Your task to perform on an android device: Go to location settings Image 0: 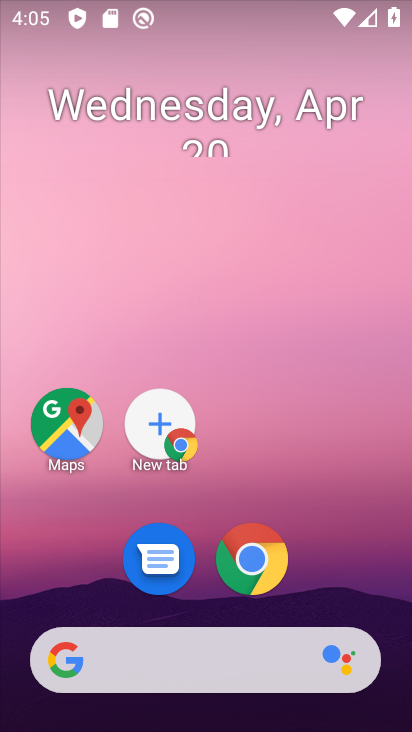
Step 0: drag from (354, 593) to (324, 220)
Your task to perform on an android device: Go to location settings Image 1: 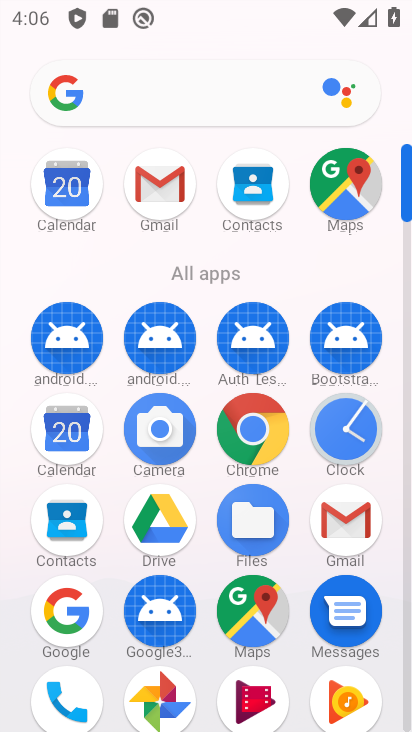
Step 1: click (249, 424)
Your task to perform on an android device: Go to location settings Image 2: 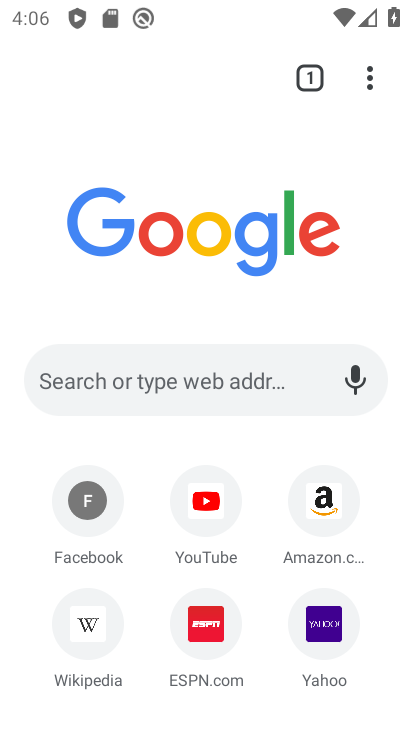
Step 2: press back button
Your task to perform on an android device: Go to location settings Image 3: 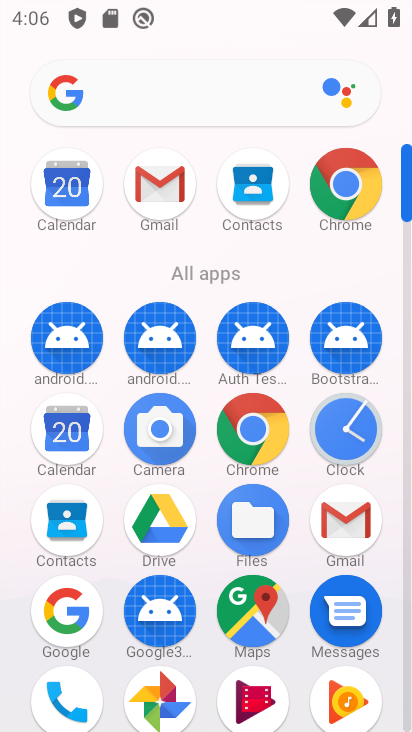
Step 3: click (409, 592)
Your task to perform on an android device: Go to location settings Image 4: 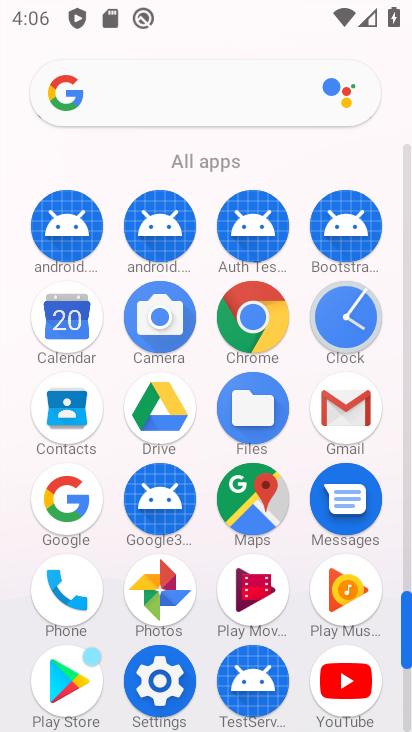
Step 4: click (163, 681)
Your task to perform on an android device: Go to location settings Image 5: 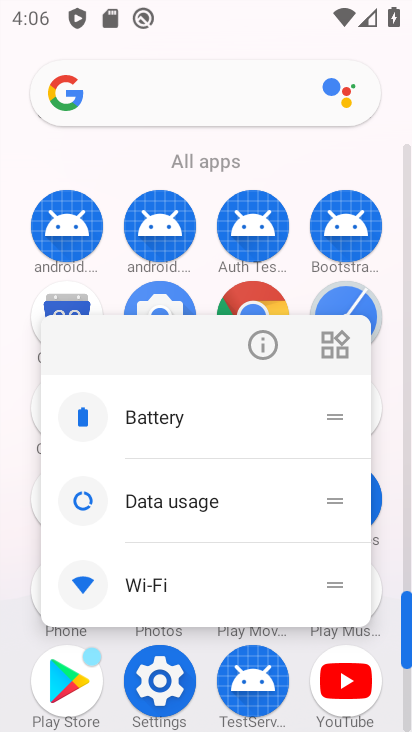
Step 5: click (163, 664)
Your task to perform on an android device: Go to location settings Image 6: 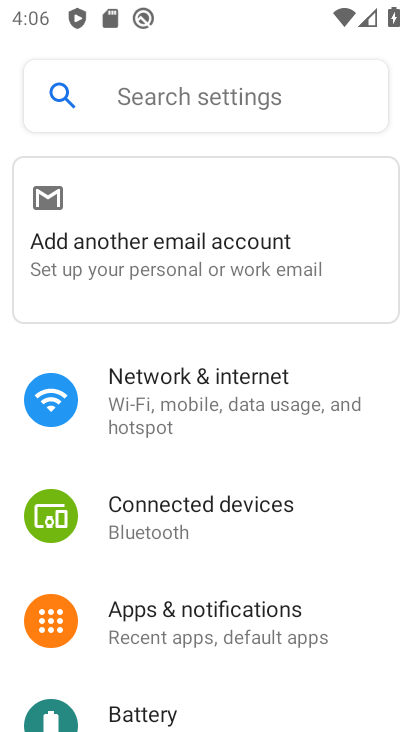
Step 6: drag from (163, 664) to (237, 343)
Your task to perform on an android device: Go to location settings Image 7: 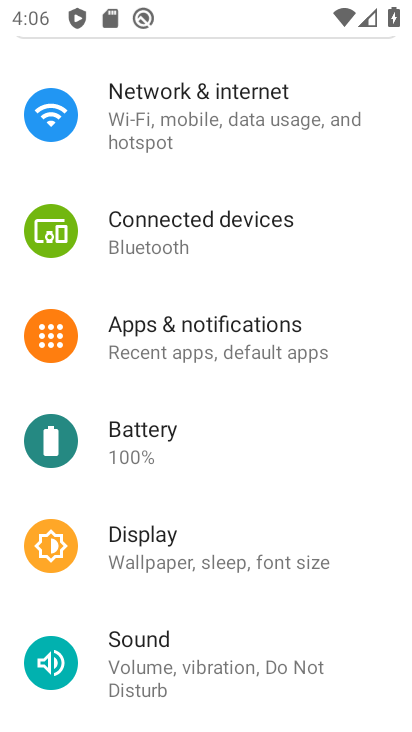
Step 7: drag from (269, 640) to (299, 339)
Your task to perform on an android device: Go to location settings Image 8: 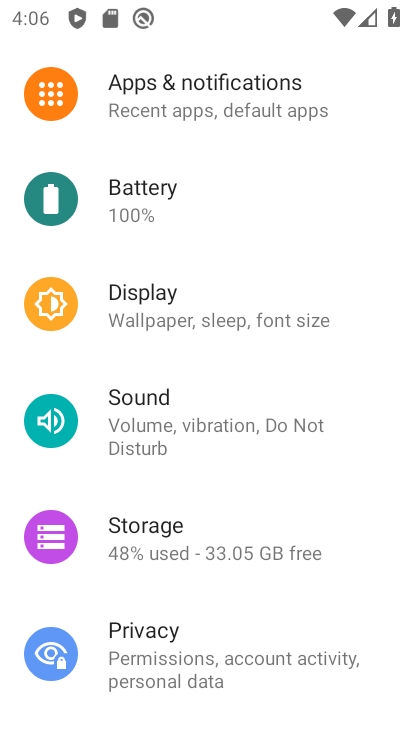
Step 8: drag from (213, 582) to (247, 282)
Your task to perform on an android device: Go to location settings Image 9: 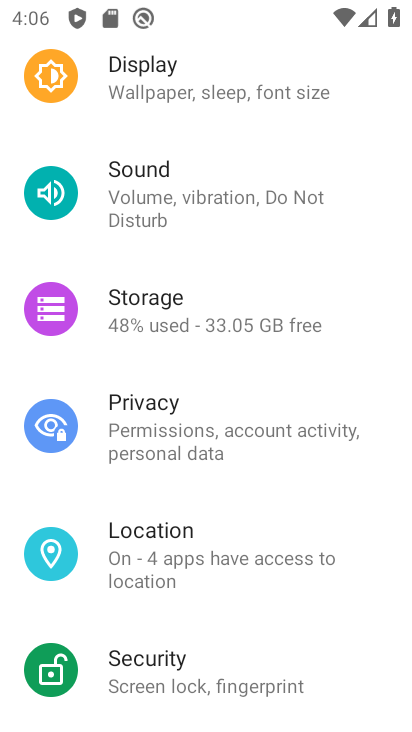
Step 9: click (252, 576)
Your task to perform on an android device: Go to location settings Image 10: 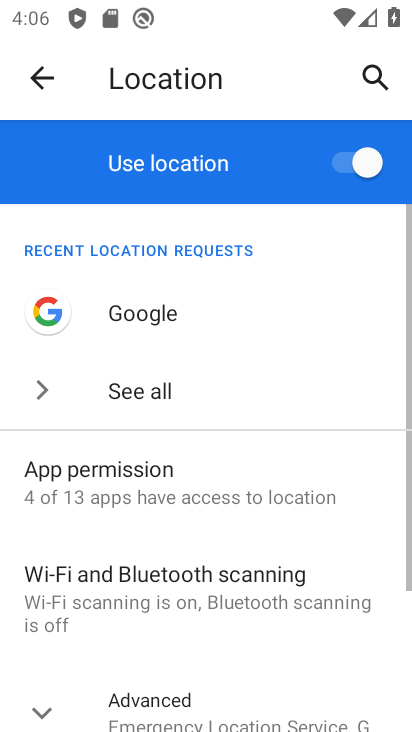
Step 10: drag from (192, 621) to (238, 400)
Your task to perform on an android device: Go to location settings Image 11: 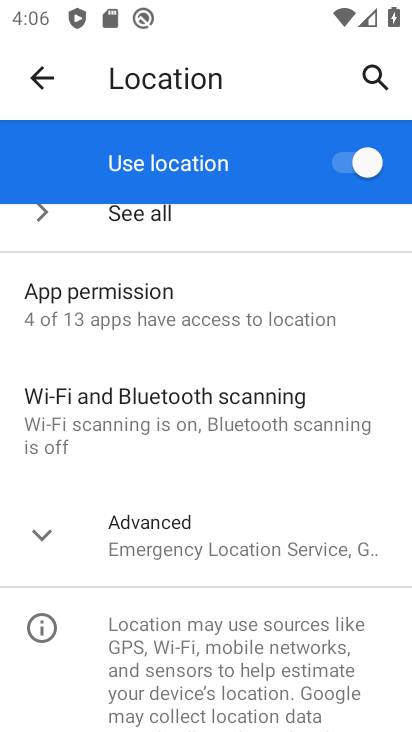
Step 11: click (223, 540)
Your task to perform on an android device: Go to location settings Image 12: 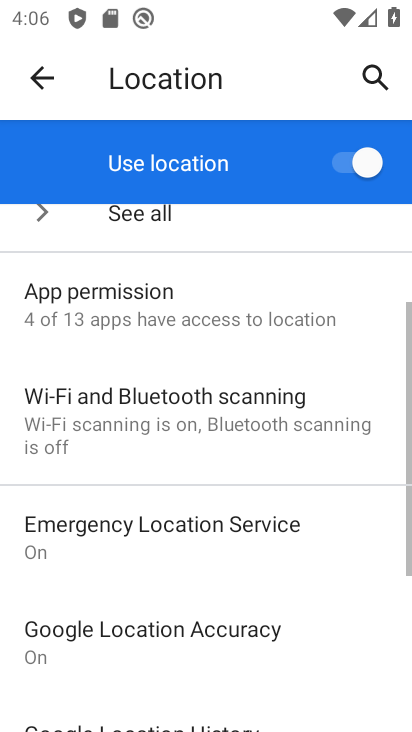
Step 12: task complete